Your task to perform on an android device: Open Google Image 0: 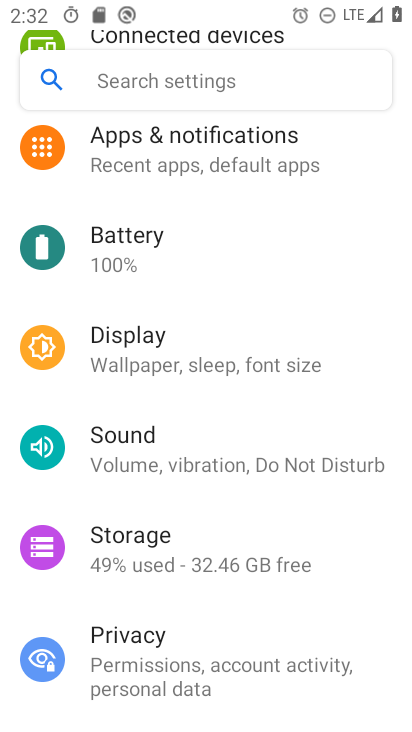
Step 0: press home button
Your task to perform on an android device: Open Google Image 1: 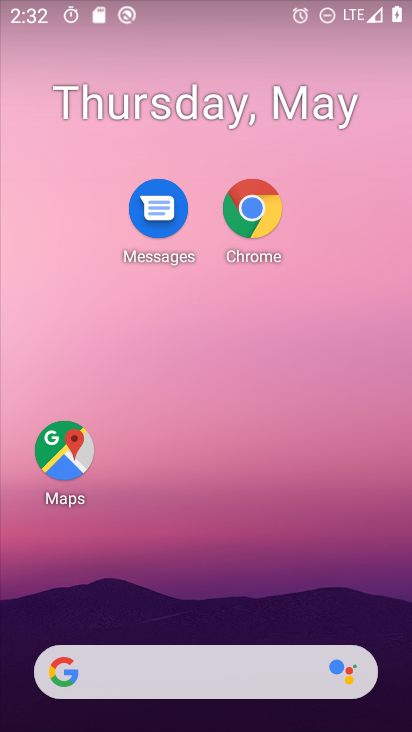
Step 1: drag from (201, 343) to (169, 66)
Your task to perform on an android device: Open Google Image 2: 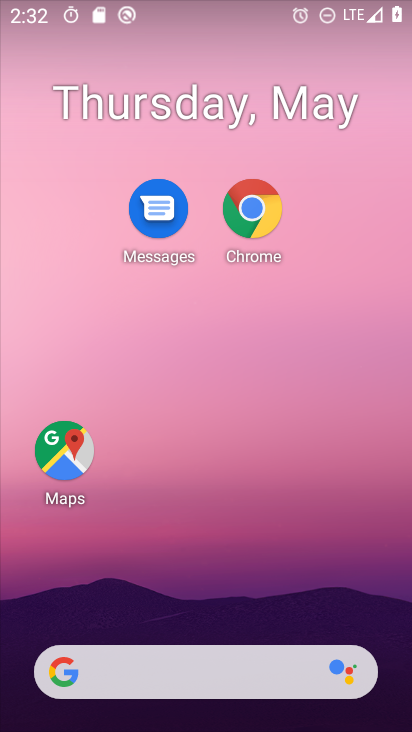
Step 2: drag from (225, 580) to (292, 20)
Your task to perform on an android device: Open Google Image 3: 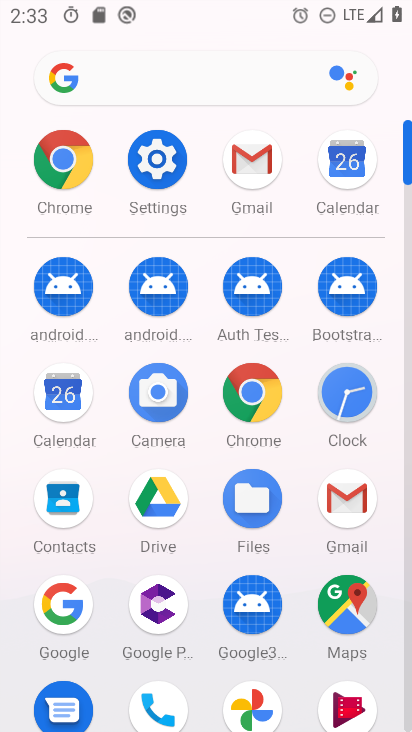
Step 3: click (62, 634)
Your task to perform on an android device: Open Google Image 4: 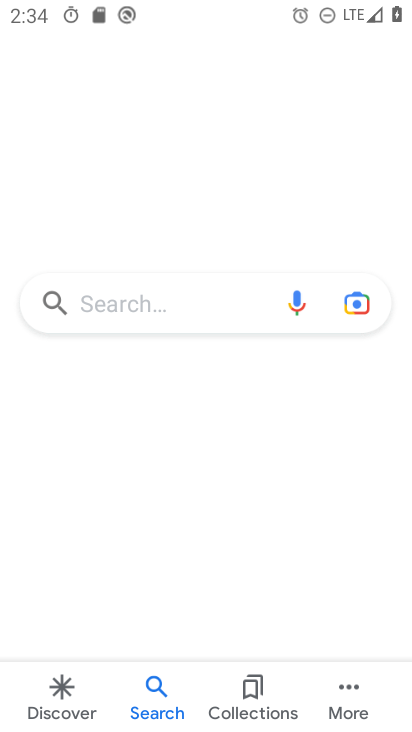
Step 4: task complete